Your task to perform on an android device: turn off location Image 0: 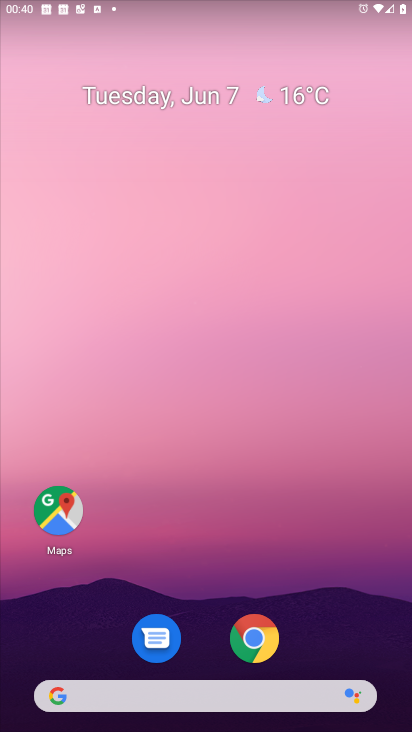
Step 0: press home button
Your task to perform on an android device: turn off location Image 1: 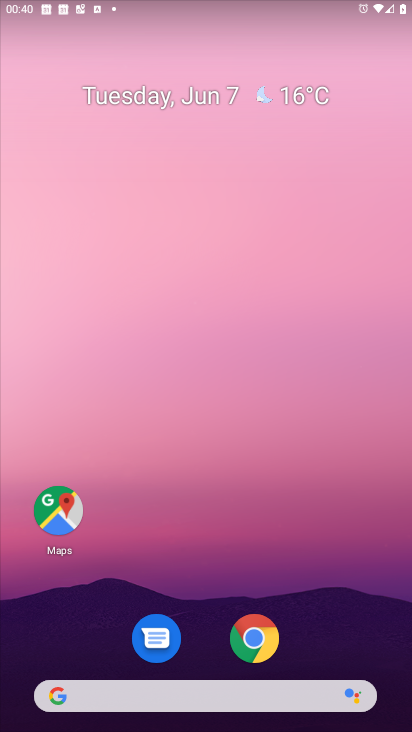
Step 1: drag from (228, 712) to (196, 160)
Your task to perform on an android device: turn off location Image 2: 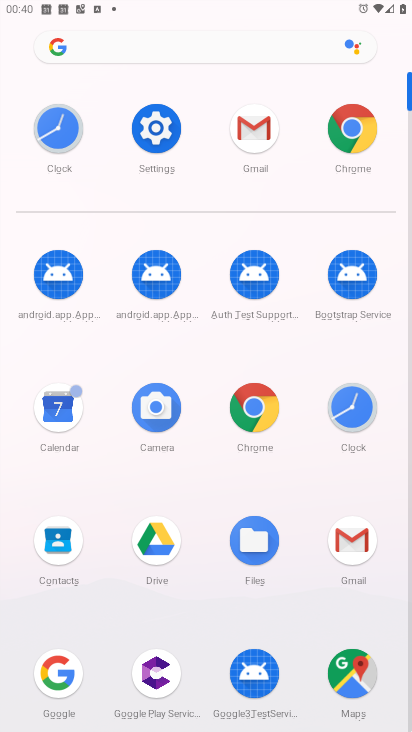
Step 2: click (155, 136)
Your task to perform on an android device: turn off location Image 3: 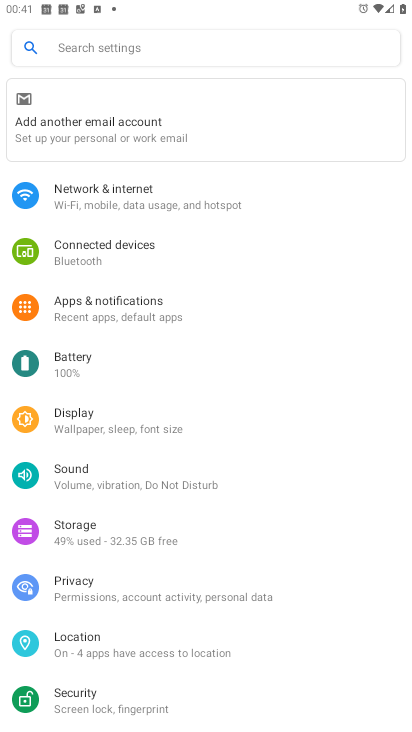
Step 3: click (98, 637)
Your task to perform on an android device: turn off location Image 4: 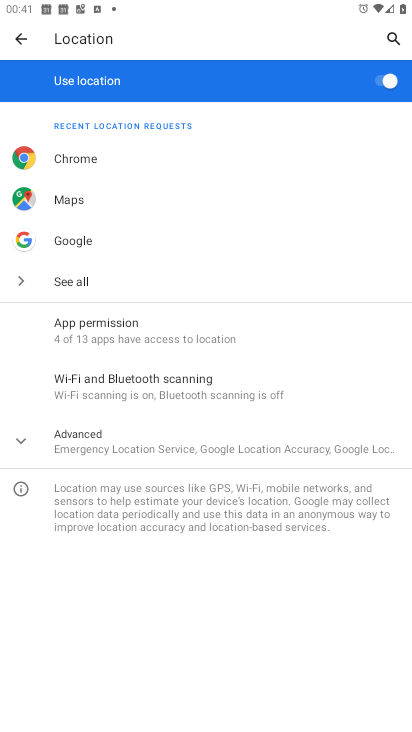
Step 4: click (378, 83)
Your task to perform on an android device: turn off location Image 5: 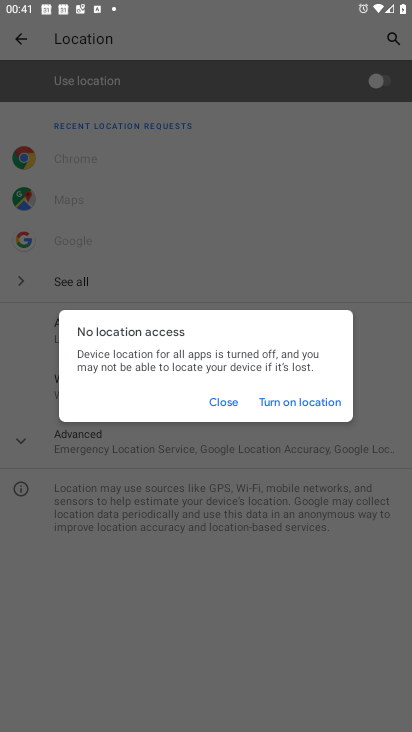
Step 5: task complete